Your task to perform on an android device: Go to settings Image 0: 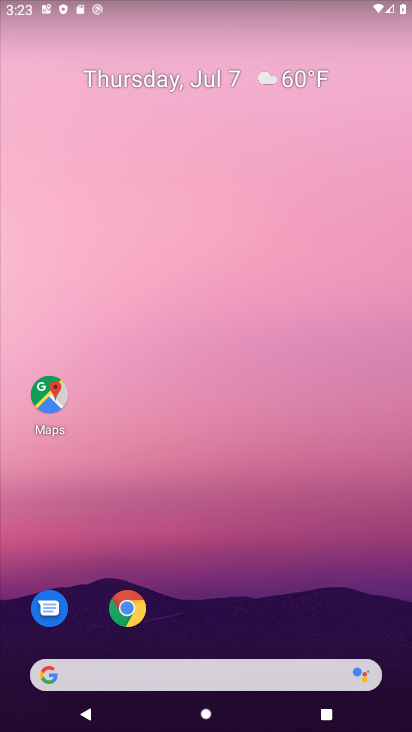
Step 0: drag from (195, 665) to (151, 191)
Your task to perform on an android device: Go to settings Image 1: 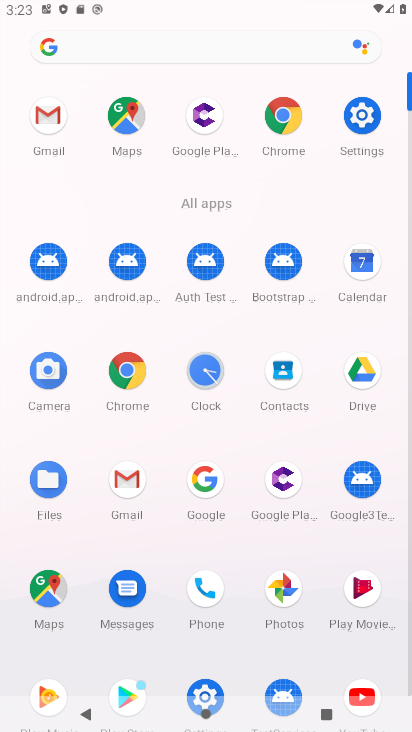
Step 1: click (371, 124)
Your task to perform on an android device: Go to settings Image 2: 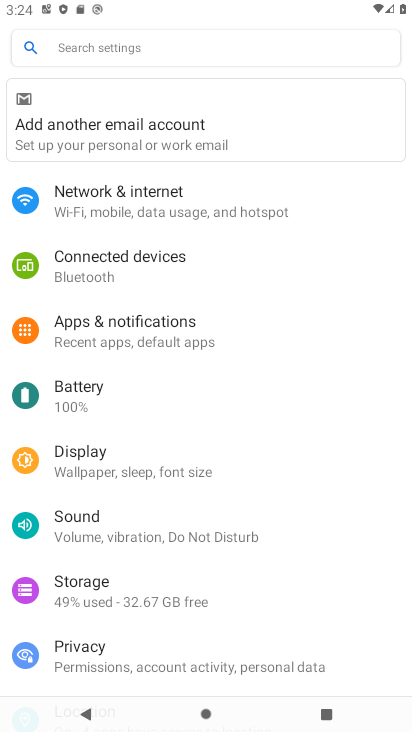
Step 2: task complete